Your task to perform on an android device: all mails in gmail Image 0: 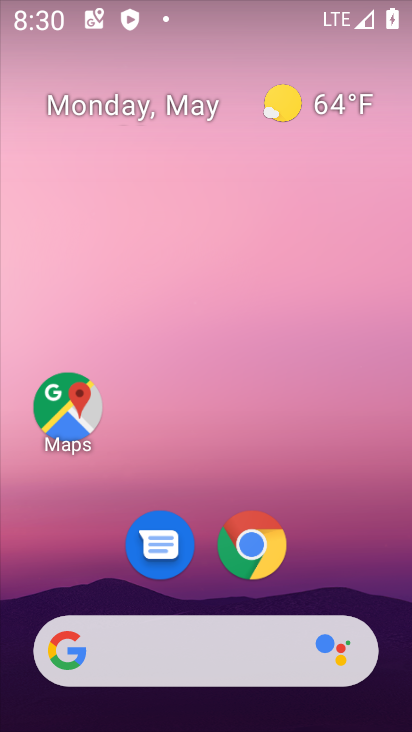
Step 0: drag from (213, 653) to (138, 12)
Your task to perform on an android device: all mails in gmail Image 1: 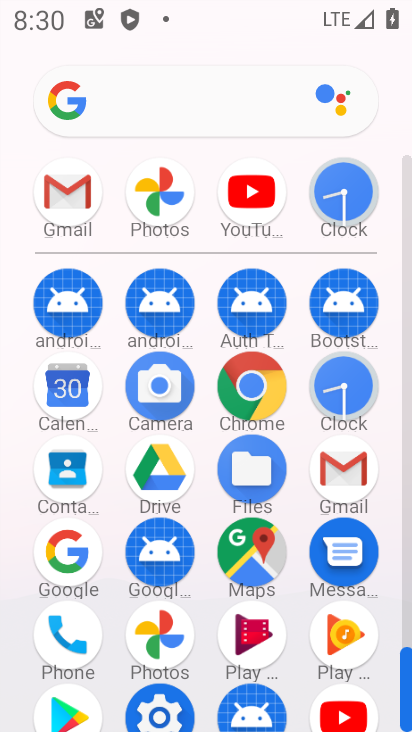
Step 1: click (76, 187)
Your task to perform on an android device: all mails in gmail Image 2: 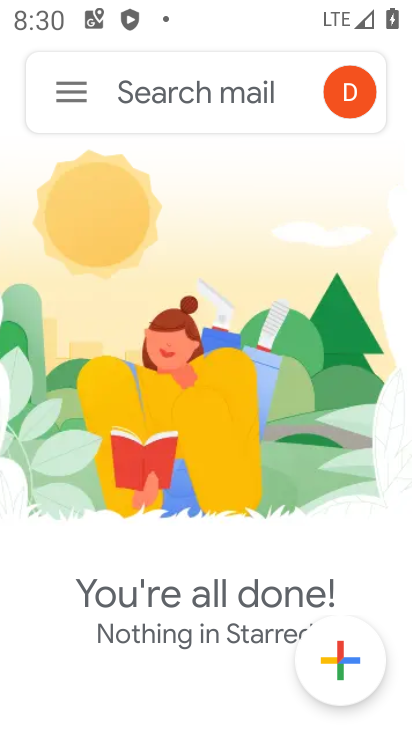
Step 2: click (66, 88)
Your task to perform on an android device: all mails in gmail Image 3: 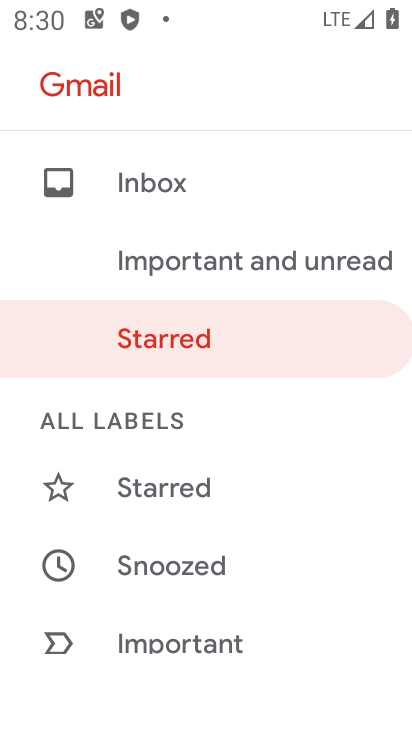
Step 3: drag from (212, 633) to (66, 1)
Your task to perform on an android device: all mails in gmail Image 4: 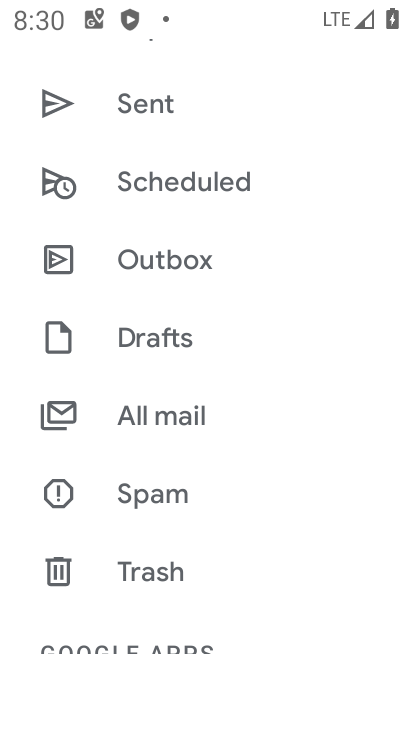
Step 4: click (148, 416)
Your task to perform on an android device: all mails in gmail Image 5: 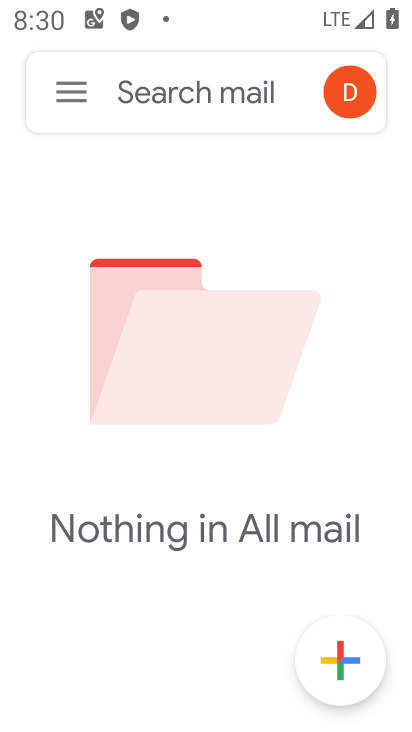
Step 5: task complete